Your task to perform on an android device: open a bookmark in the chrome app Image 0: 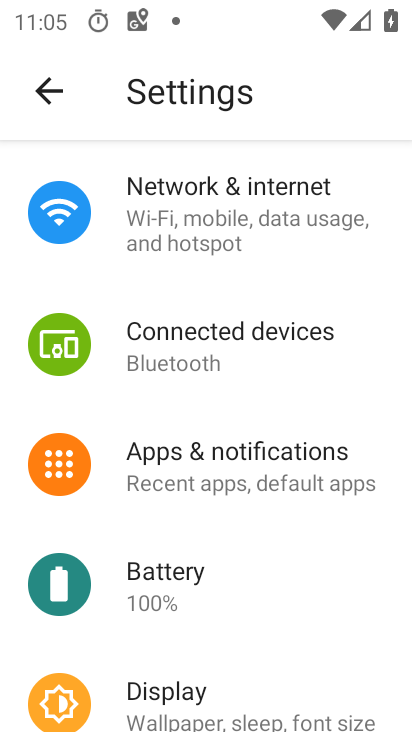
Step 0: press home button
Your task to perform on an android device: open a bookmark in the chrome app Image 1: 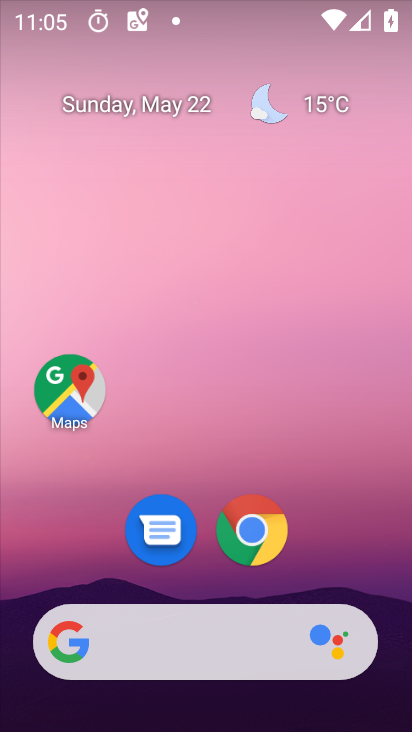
Step 1: click (254, 517)
Your task to perform on an android device: open a bookmark in the chrome app Image 2: 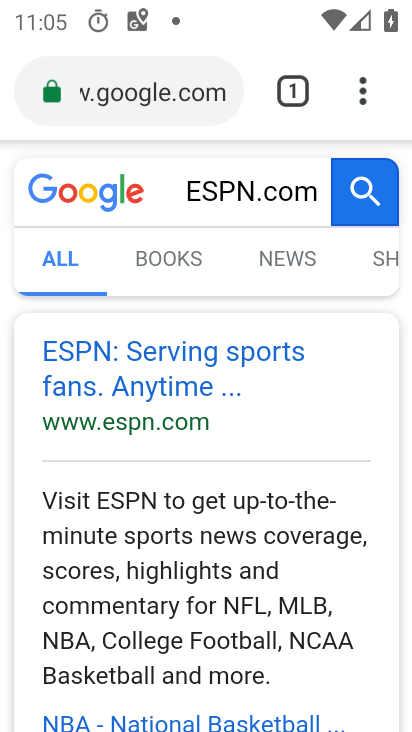
Step 2: click (359, 81)
Your task to perform on an android device: open a bookmark in the chrome app Image 3: 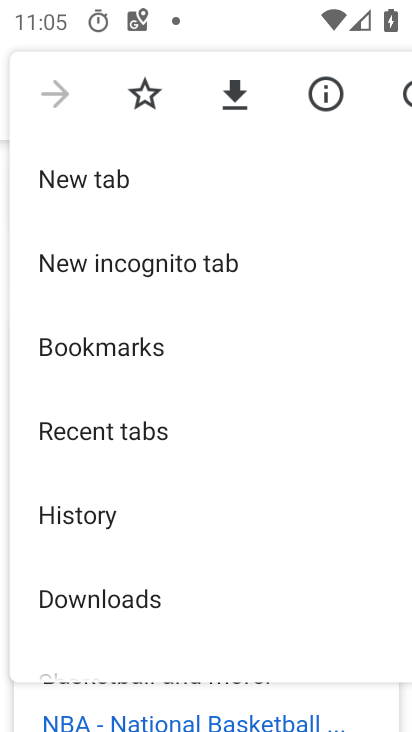
Step 3: click (121, 344)
Your task to perform on an android device: open a bookmark in the chrome app Image 4: 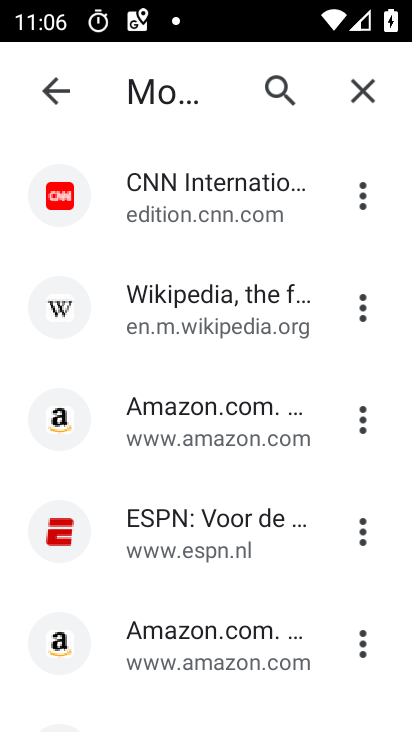
Step 4: click (175, 293)
Your task to perform on an android device: open a bookmark in the chrome app Image 5: 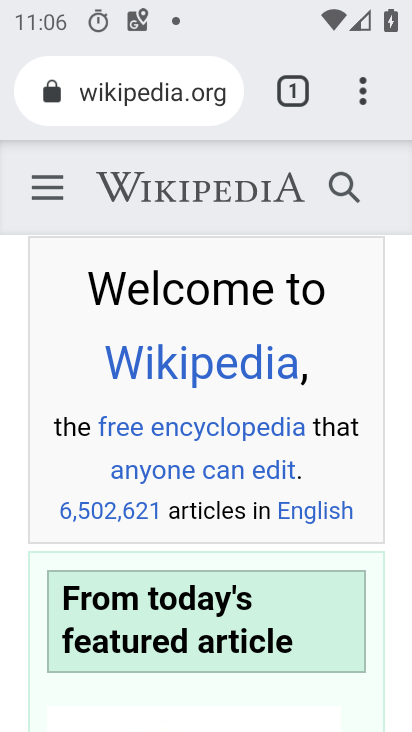
Step 5: task complete